Your task to perform on an android device: Open Chrome and go to the settings page Image 0: 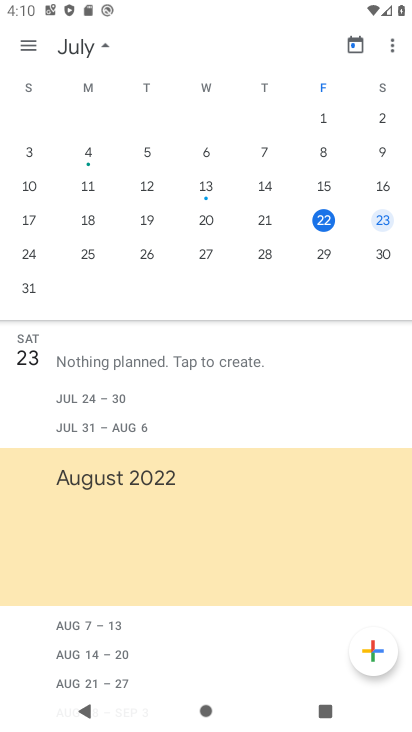
Step 0: press home button
Your task to perform on an android device: Open Chrome and go to the settings page Image 1: 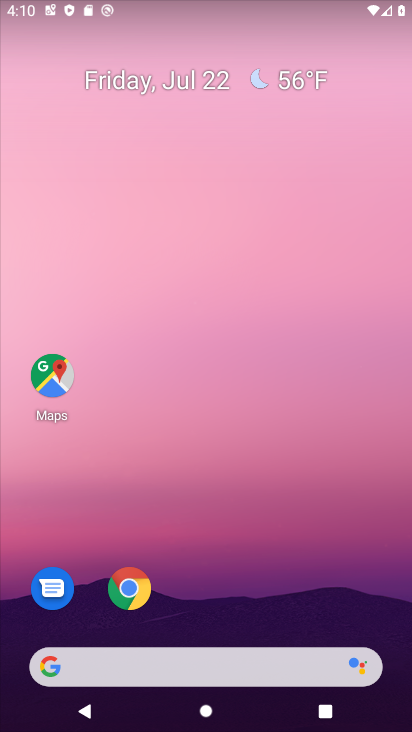
Step 1: click (140, 592)
Your task to perform on an android device: Open Chrome and go to the settings page Image 2: 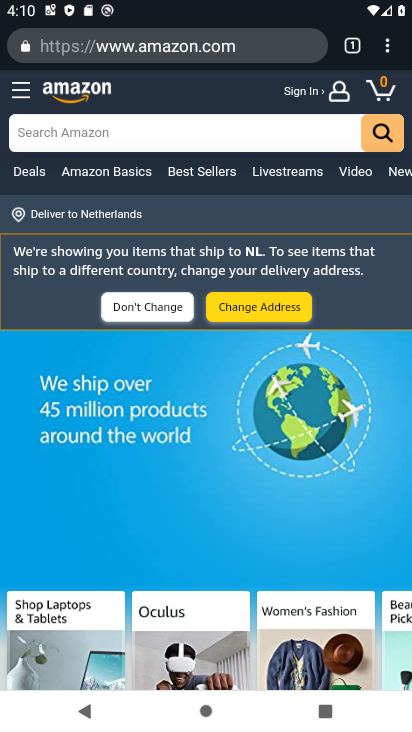
Step 2: click (381, 55)
Your task to perform on an android device: Open Chrome and go to the settings page Image 3: 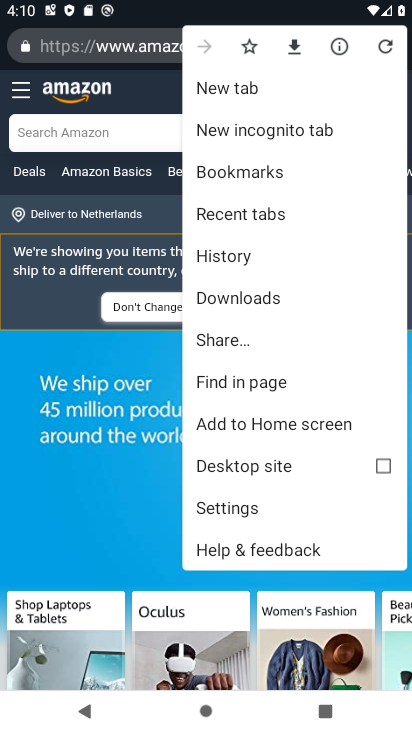
Step 3: click (267, 514)
Your task to perform on an android device: Open Chrome and go to the settings page Image 4: 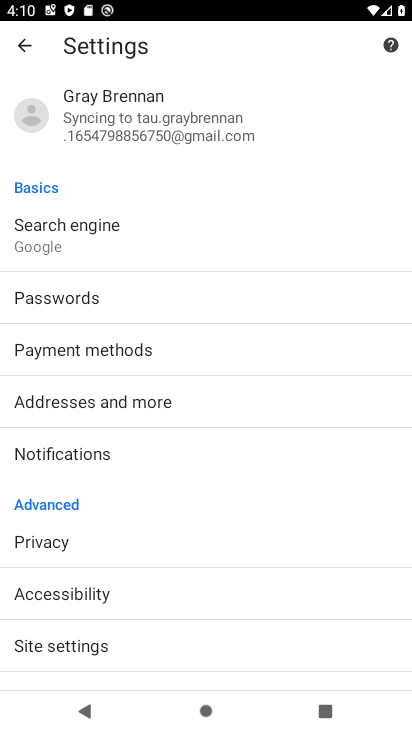
Step 4: task complete